Your task to perform on an android device: What's on my calendar today? Image 0: 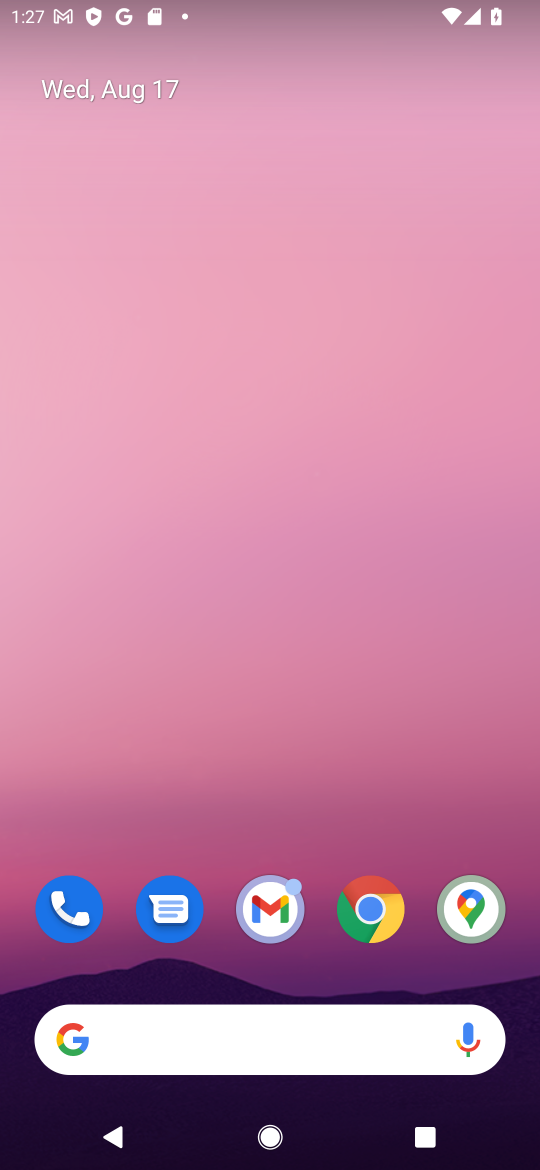
Step 0: type ""
Your task to perform on an android device: What's on my calendar today? Image 1: 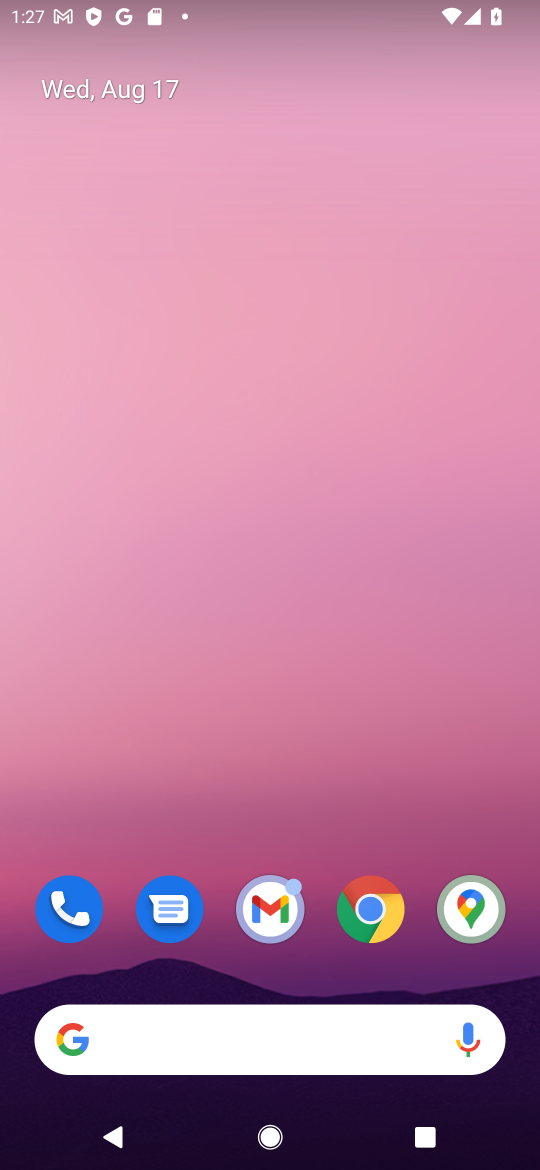
Step 1: task complete